Your task to perform on an android device: Go to internet settings Image 0: 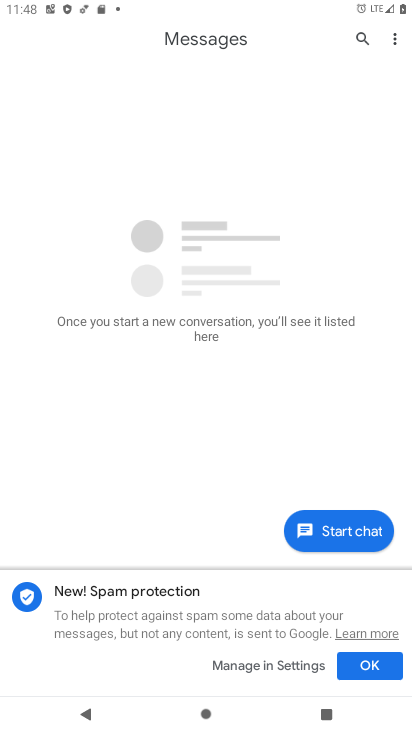
Step 0: press home button
Your task to perform on an android device: Go to internet settings Image 1: 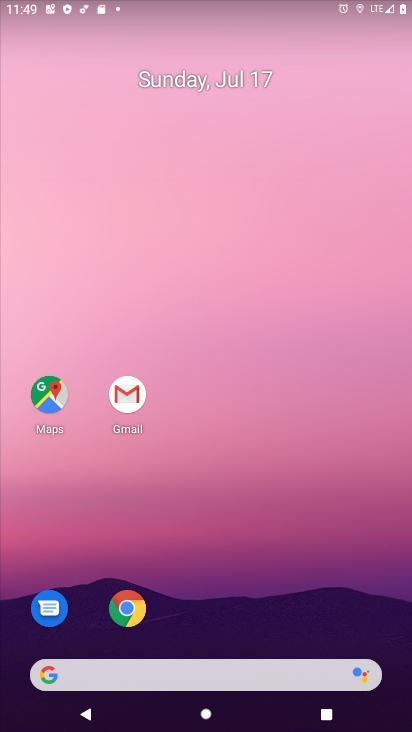
Step 1: drag from (203, 641) to (139, 91)
Your task to perform on an android device: Go to internet settings Image 2: 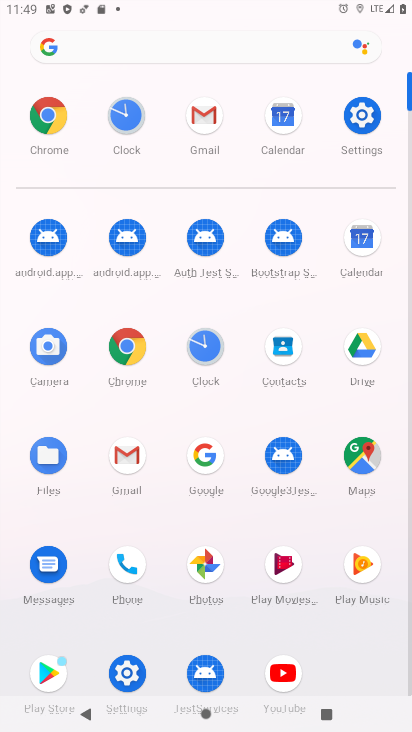
Step 2: click (366, 100)
Your task to perform on an android device: Go to internet settings Image 3: 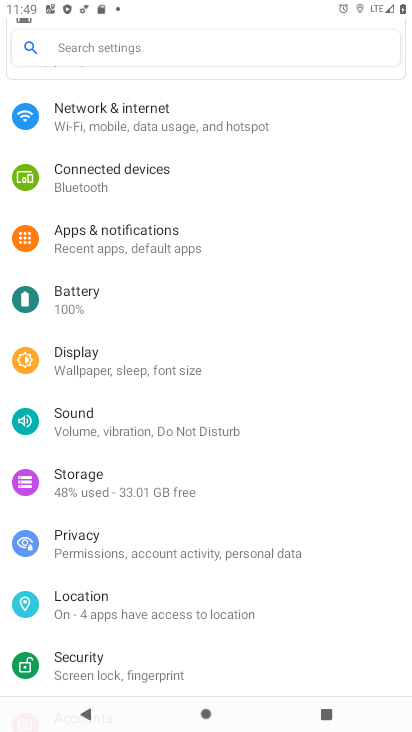
Step 3: click (151, 133)
Your task to perform on an android device: Go to internet settings Image 4: 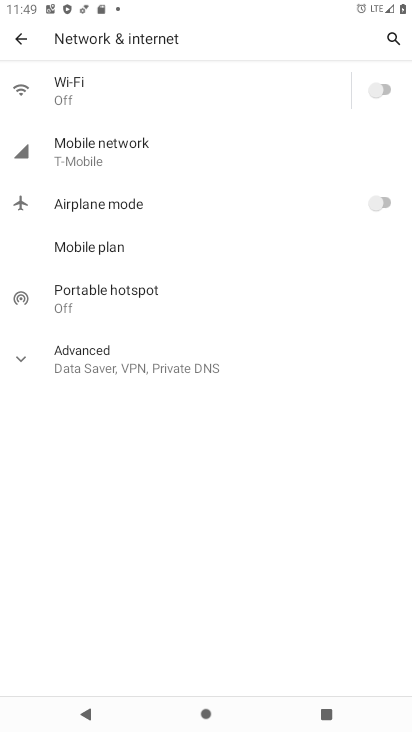
Step 4: click (98, 153)
Your task to perform on an android device: Go to internet settings Image 5: 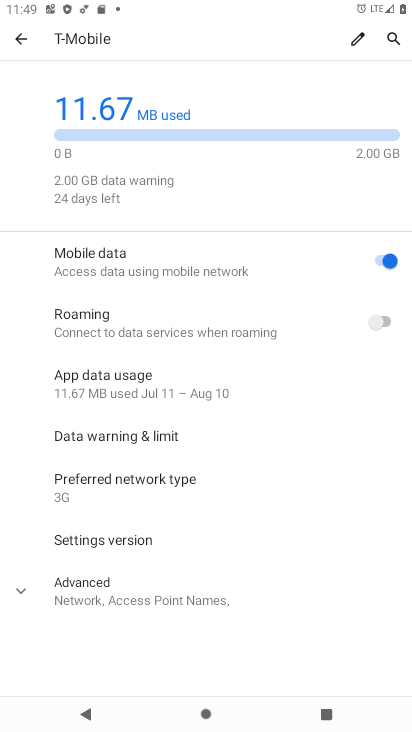
Step 5: click (106, 587)
Your task to perform on an android device: Go to internet settings Image 6: 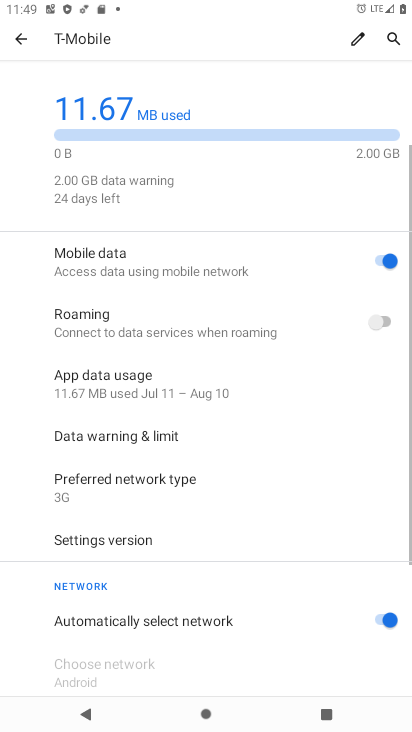
Step 6: task complete